Your task to perform on an android device: create a new album in the google photos Image 0: 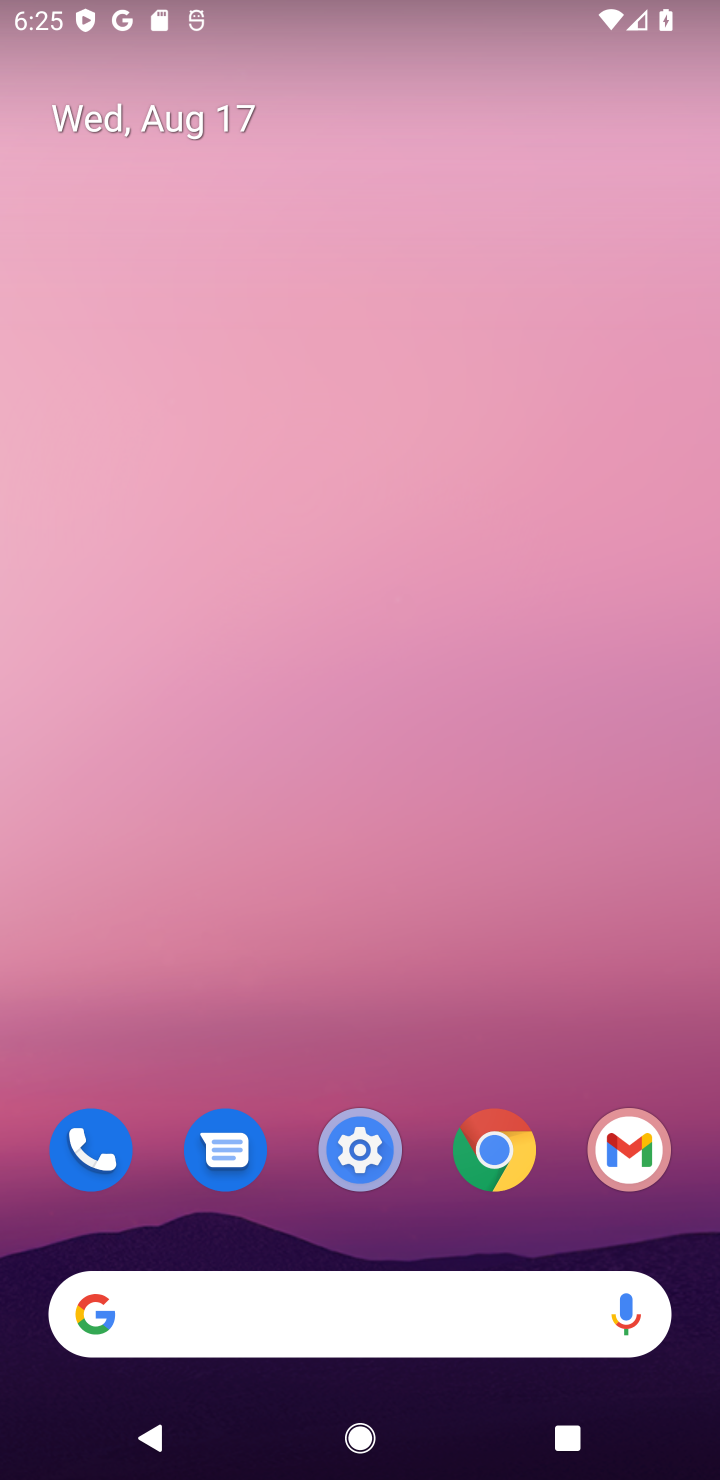
Step 0: drag from (212, 1011) to (212, 534)
Your task to perform on an android device: create a new album in the google photos Image 1: 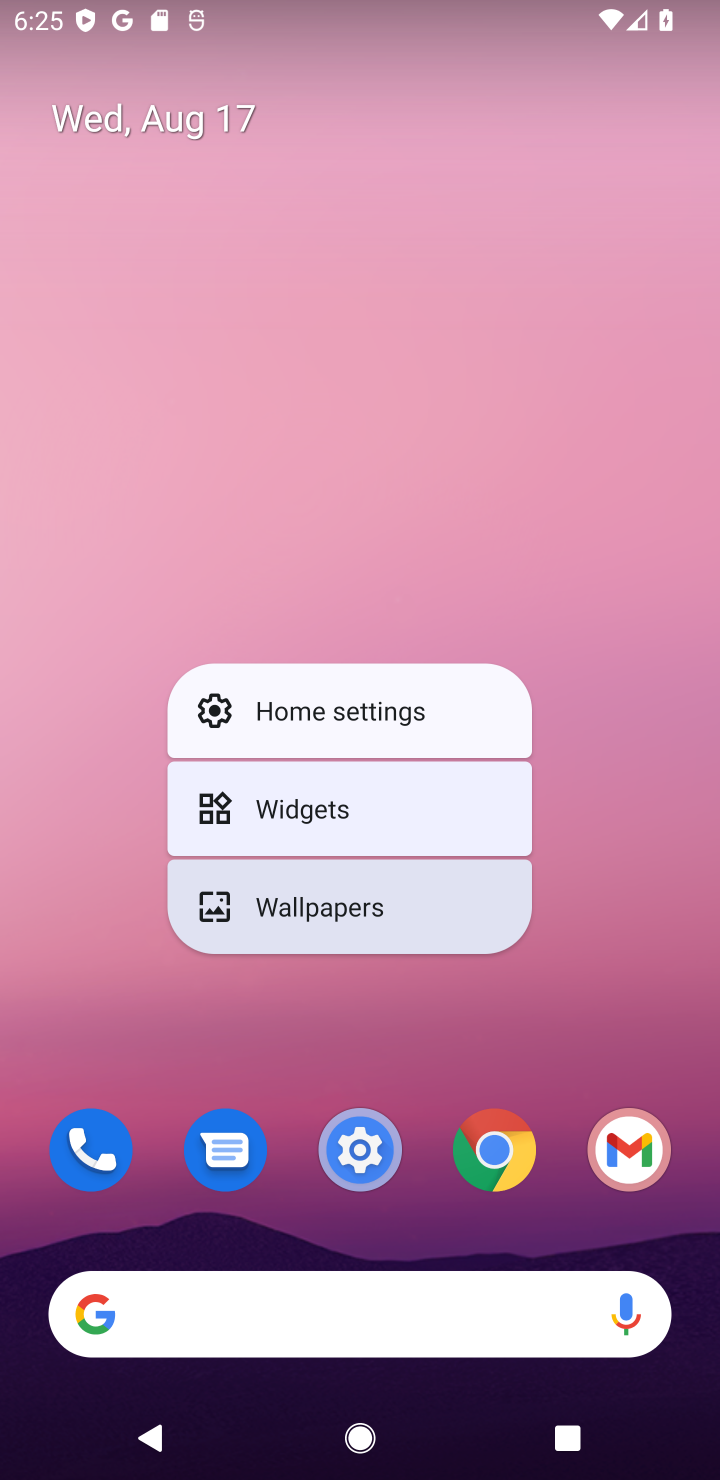
Step 1: drag from (430, 1298) to (432, 692)
Your task to perform on an android device: create a new album in the google photos Image 2: 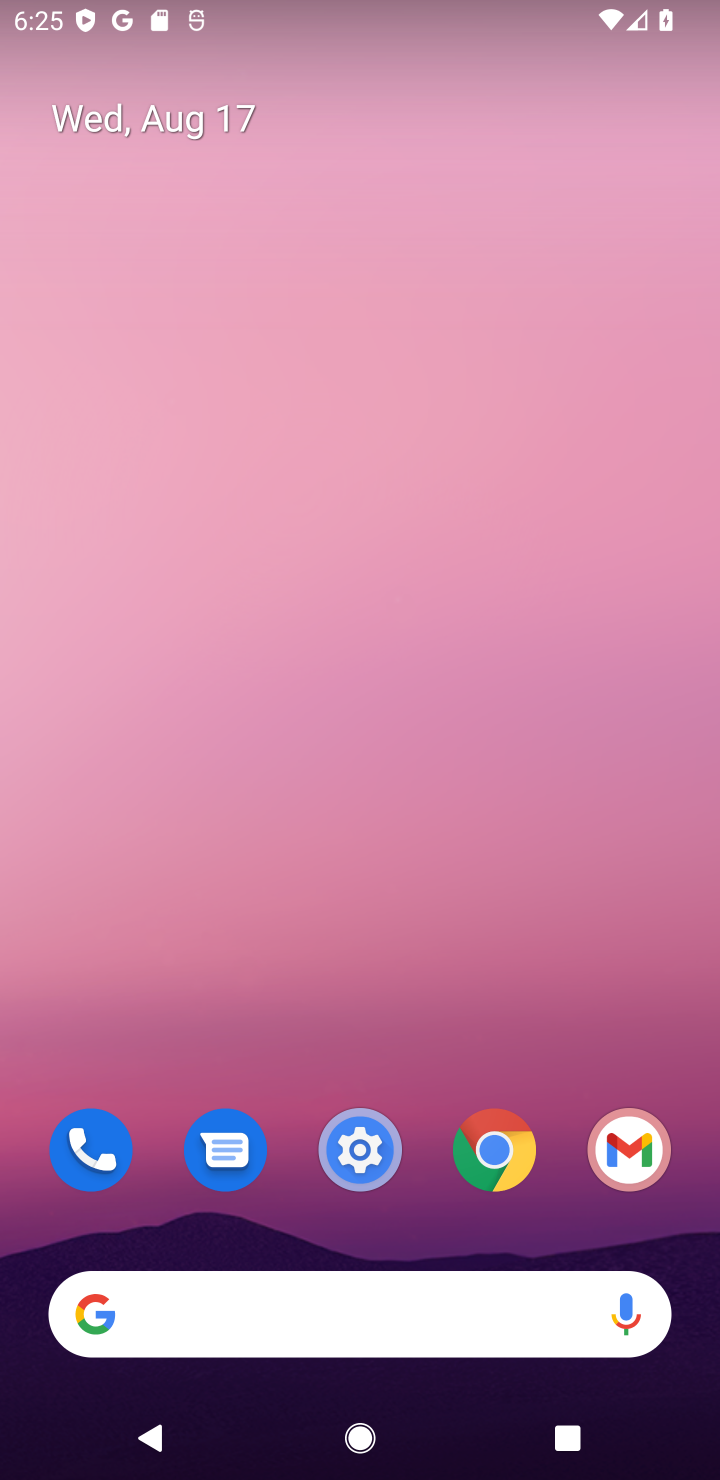
Step 2: drag from (356, 1202) to (327, 305)
Your task to perform on an android device: create a new album in the google photos Image 3: 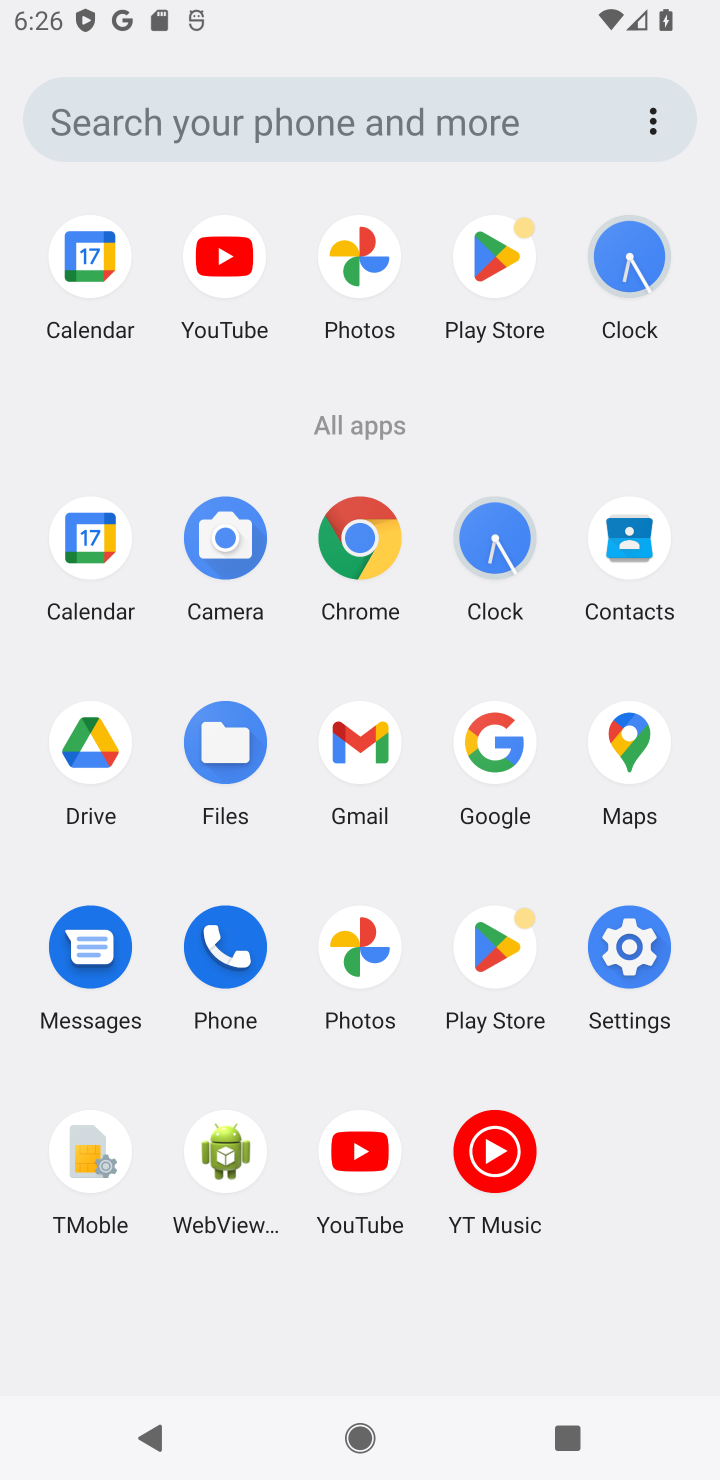
Step 3: click (355, 287)
Your task to perform on an android device: create a new album in the google photos Image 4: 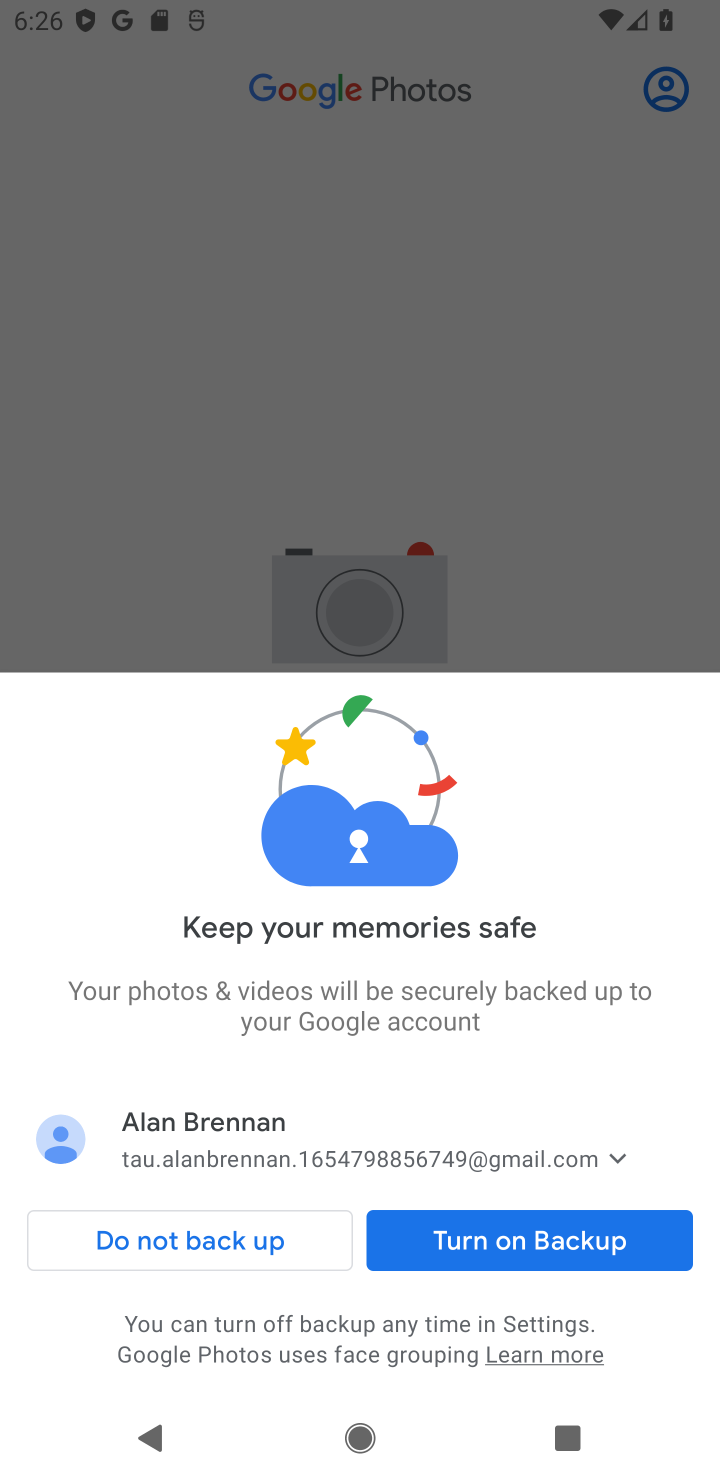
Step 4: task complete